Your task to perform on an android device: turn off notifications in google photos Image 0: 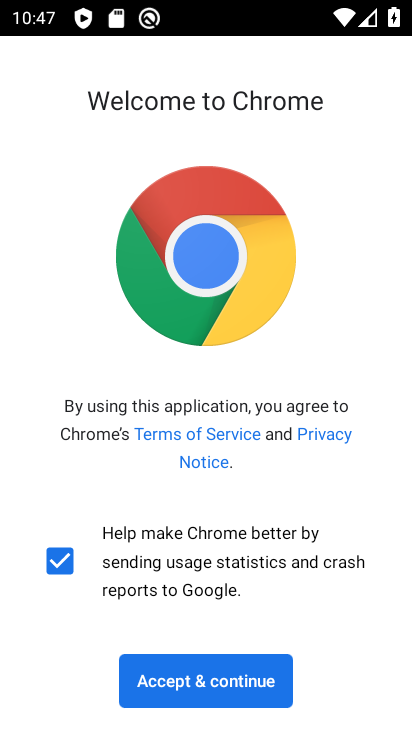
Step 0: press home button
Your task to perform on an android device: turn off notifications in google photos Image 1: 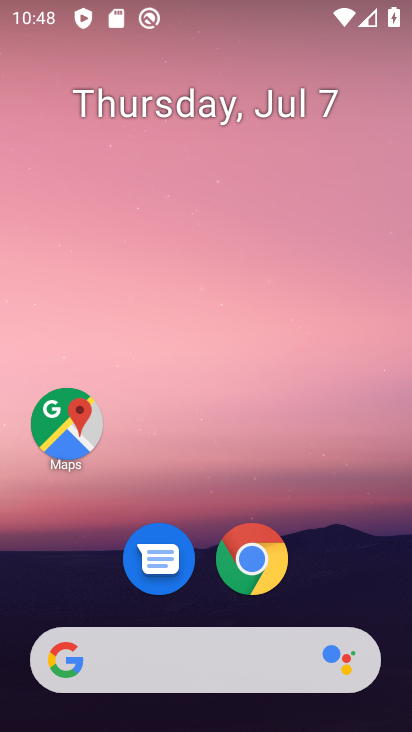
Step 1: drag from (345, 581) to (355, 89)
Your task to perform on an android device: turn off notifications in google photos Image 2: 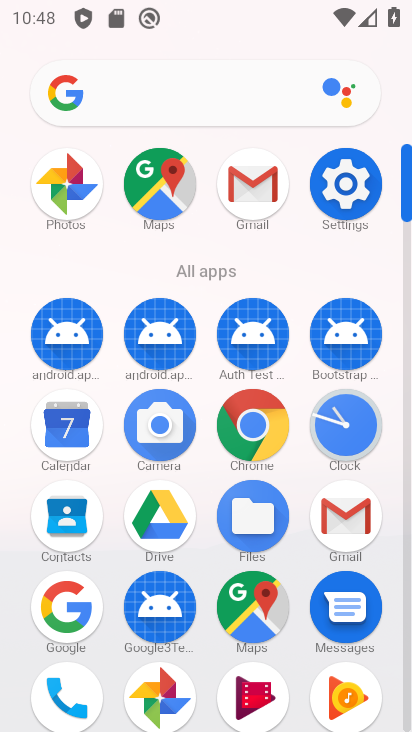
Step 2: drag from (382, 557) to (389, 326)
Your task to perform on an android device: turn off notifications in google photos Image 3: 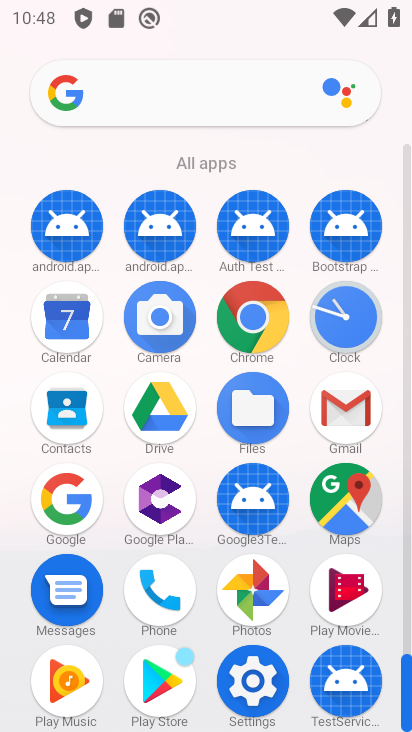
Step 3: click (263, 592)
Your task to perform on an android device: turn off notifications in google photos Image 4: 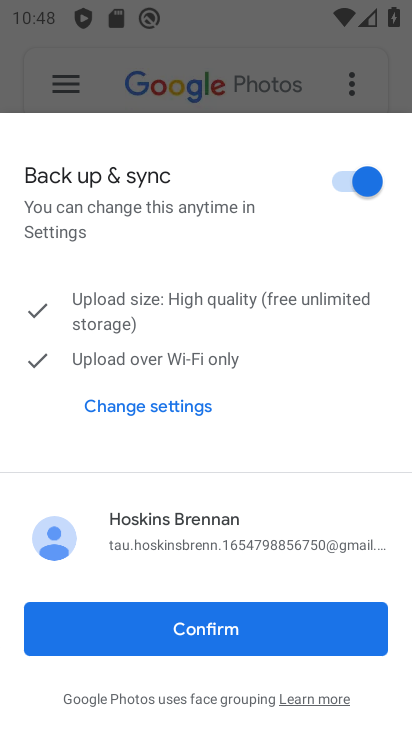
Step 4: click (203, 630)
Your task to perform on an android device: turn off notifications in google photos Image 5: 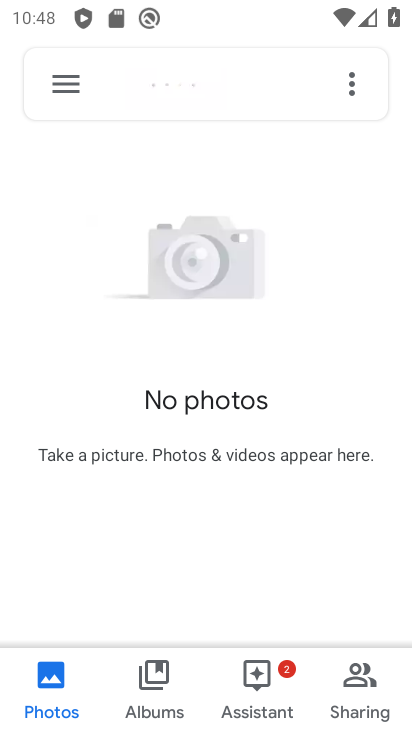
Step 5: click (69, 77)
Your task to perform on an android device: turn off notifications in google photos Image 6: 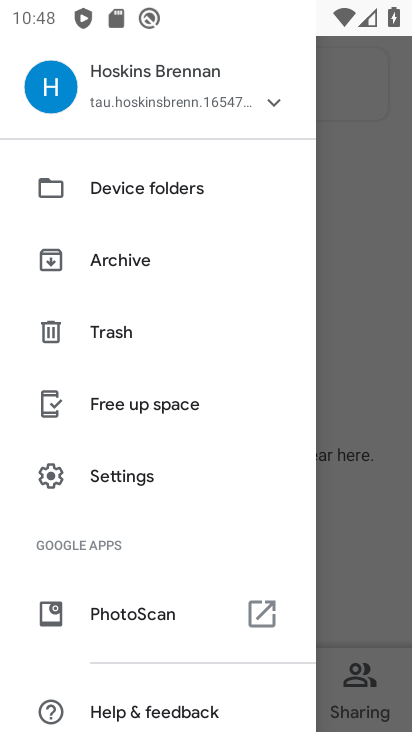
Step 6: drag from (244, 504) to (252, 309)
Your task to perform on an android device: turn off notifications in google photos Image 7: 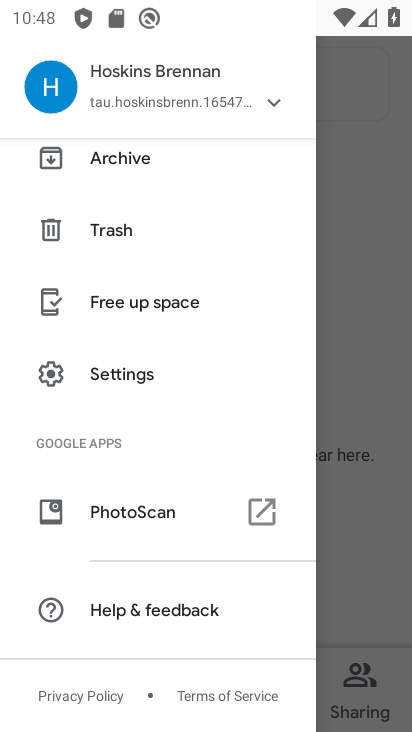
Step 7: drag from (241, 211) to (227, 431)
Your task to perform on an android device: turn off notifications in google photos Image 8: 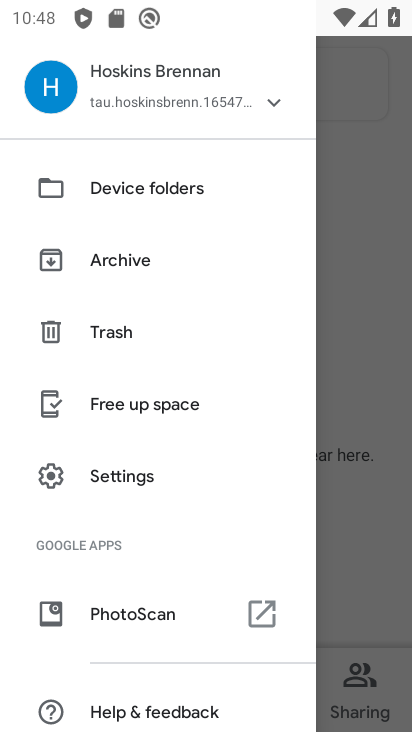
Step 8: click (147, 463)
Your task to perform on an android device: turn off notifications in google photos Image 9: 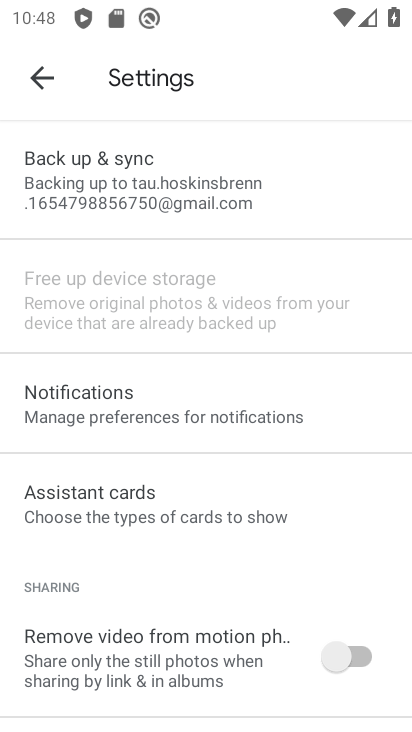
Step 9: click (241, 425)
Your task to perform on an android device: turn off notifications in google photos Image 10: 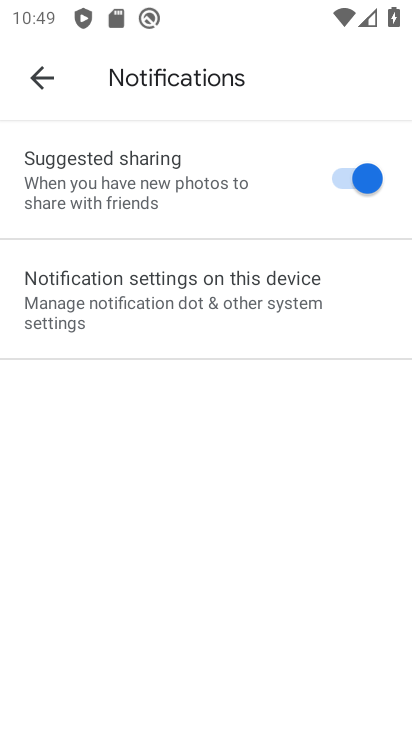
Step 10: click (252, 312)
Your task to perform on an android device: turn off notifications in google photos Image 11: 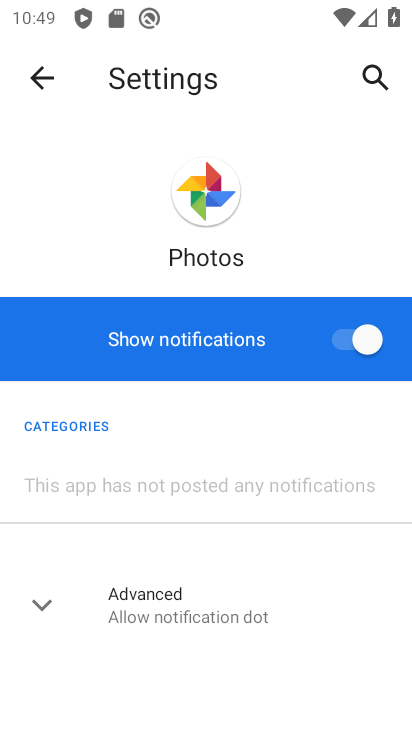
Step 11: click (370, 346)
Your task to perform on an android device: turn off notifications in google photos Image 12: 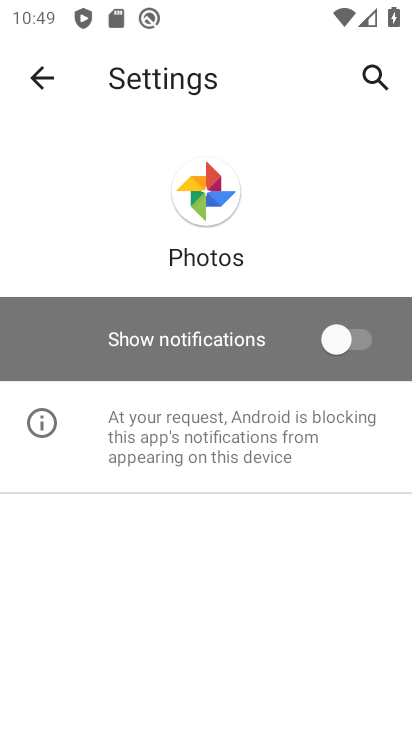
Step 12: task complete